Your task to perform on an android device: change notifications settings Image 0: 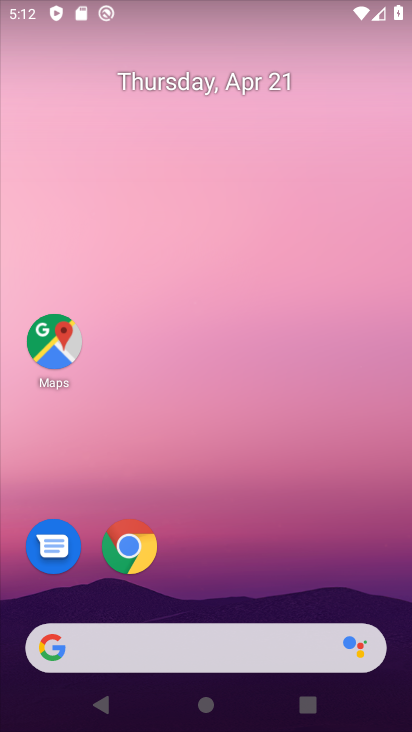
Step 0: drag from (227, 550) to (216, 54)
Your task to perform on an android device: change notifications settings Image 1: 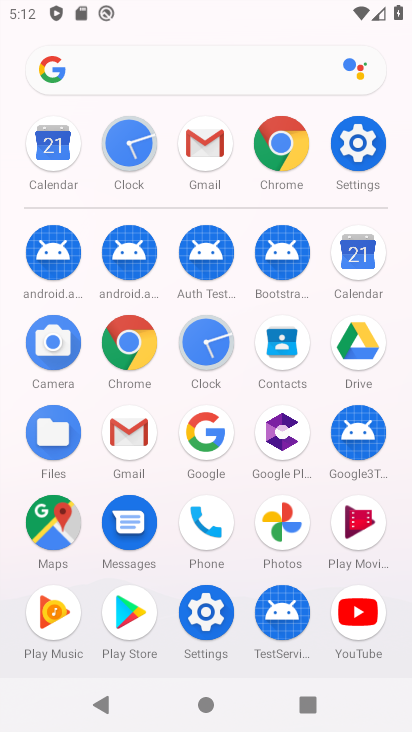
Step 1: click (365, 149)
Your task to perform on an android device: change notifications settings Image 2: 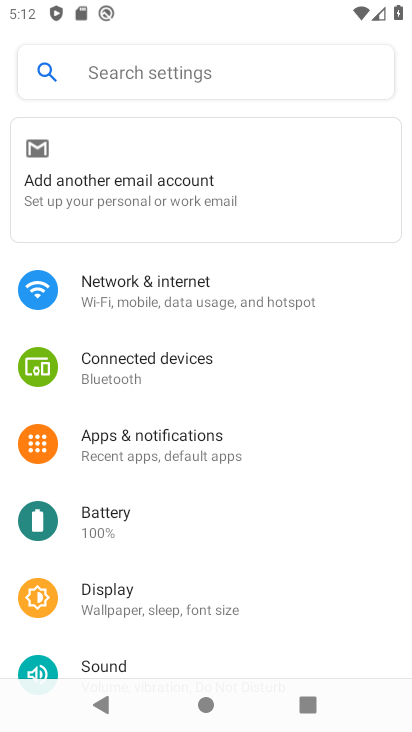
Step 2: click (158, 454)
Your task to perform on an android device: change notifications settings Image 3: 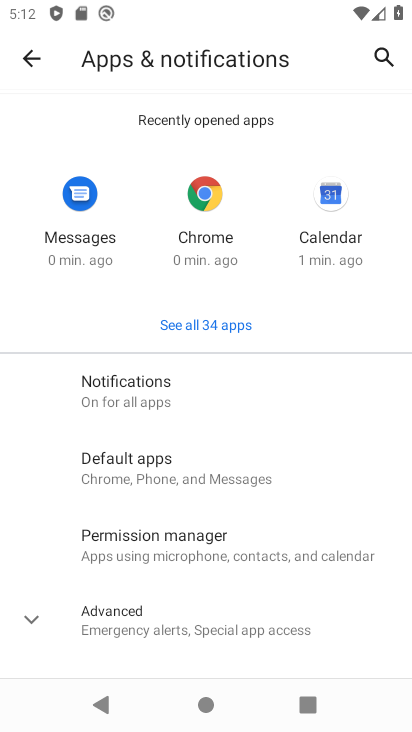
Step 3: click (159, 387)
Your task to perform on an android device: change notifications settings Image 4: 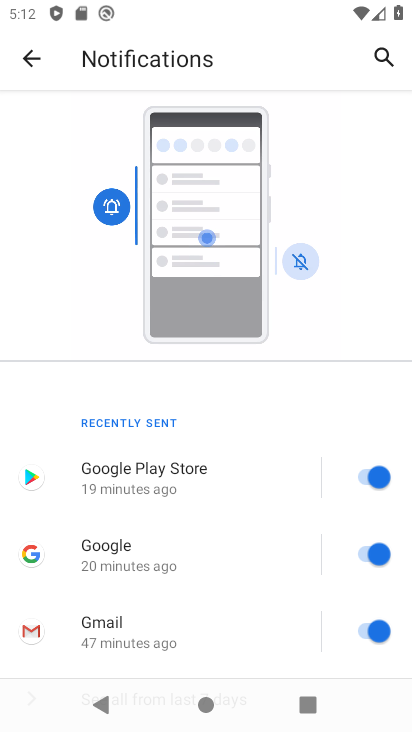
Step 4: click (365, 552)
Your task to perform on an android device: change notifications settings Image 5: 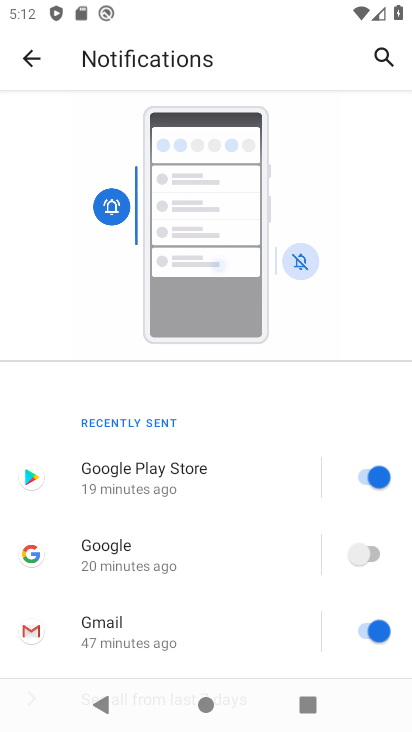
Step 5: task complete